Your task to perform on an android device: Open calendar and show me the second week of next month Image 0: 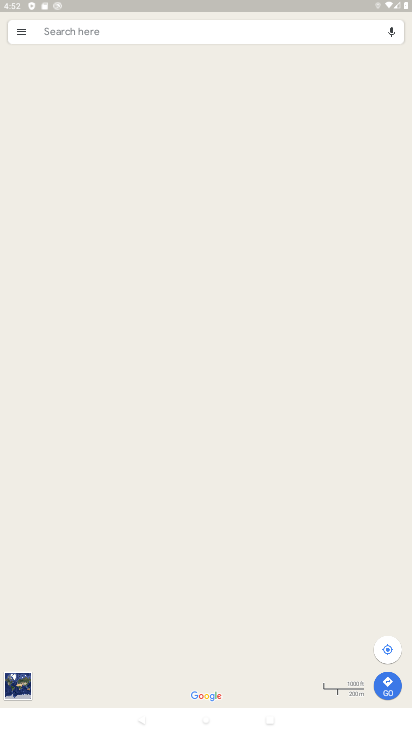
Step 0: press back button
Your task to perform on an android device: Open calendar and show me the second week of next month Image 1: 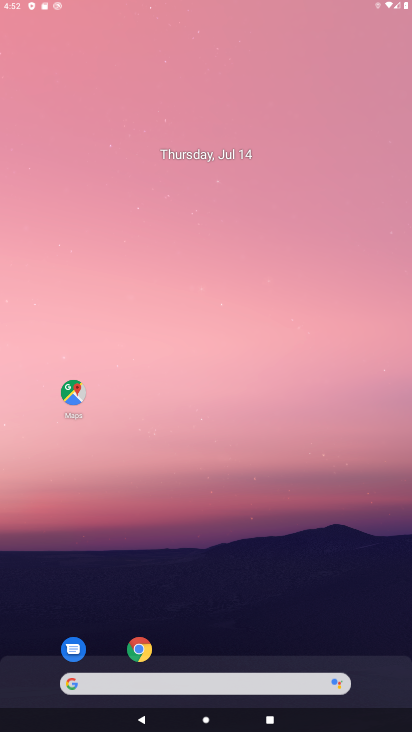
Step 1: press back button
Your task to perform on an android device: Open calendar and show me the second week of next month Image 2: 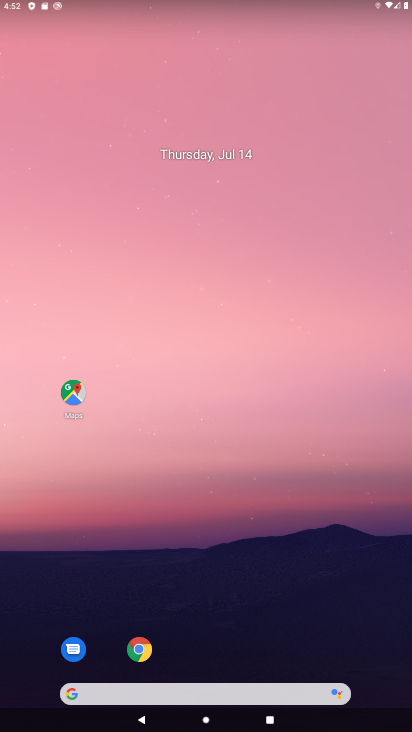
Step 2: click (284, 103)
Your task to perform on an android device: Open calendar and show me the second week of next month Image 3: 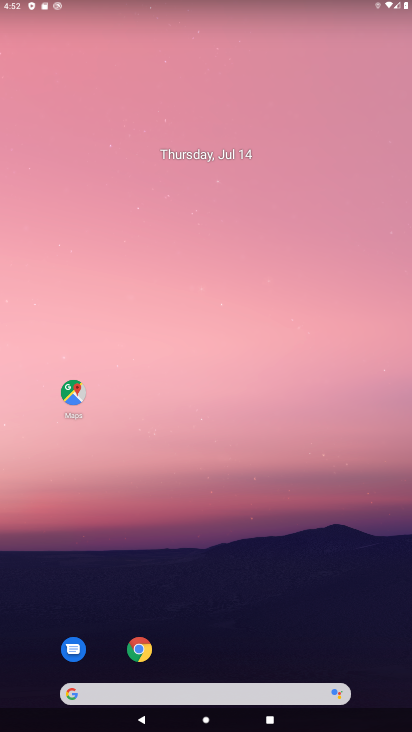
Step 3: drag from (202, 499) to (227, 88)
Your task to perform on an android device: Open calendar and show me the second week of next month Image 4: 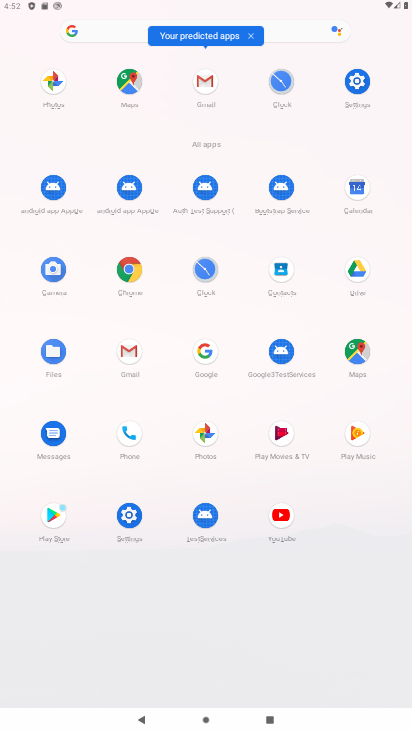
Step 4: click (359, 179)
Your task to perform on an android device: Open calendar and show me the second week of next month Image 5: 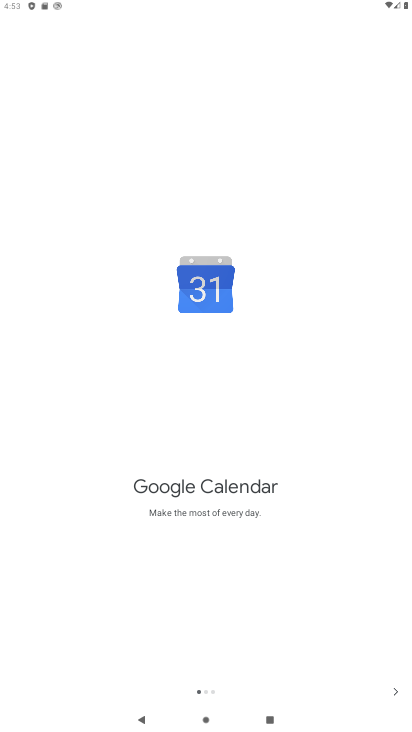
Step 5: click (399, 690)
Your task to perform on an android device: Open calendar and show me the second week of next month Image 6: 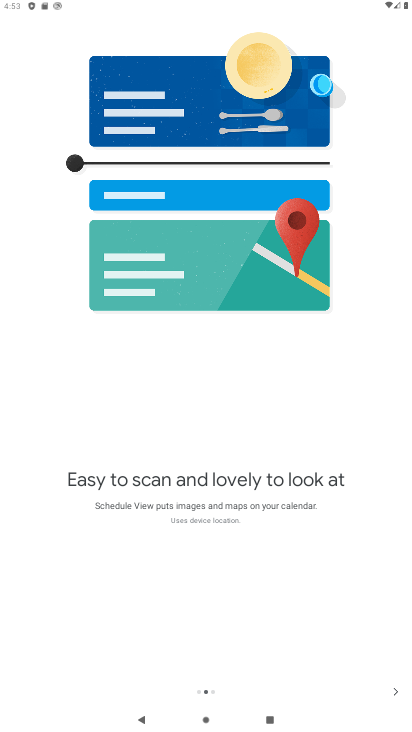
Step 6: click (386, 689)
Your task to perform on an android device: Open calendar and show me the second week of next month Image 7: 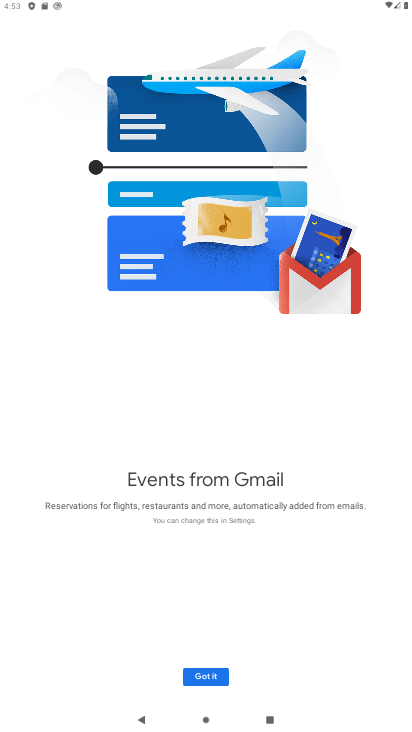
Step 7: click (209, 678)
Your task to perform on an android device: Open calendar and show me the second week of next month Image 8: 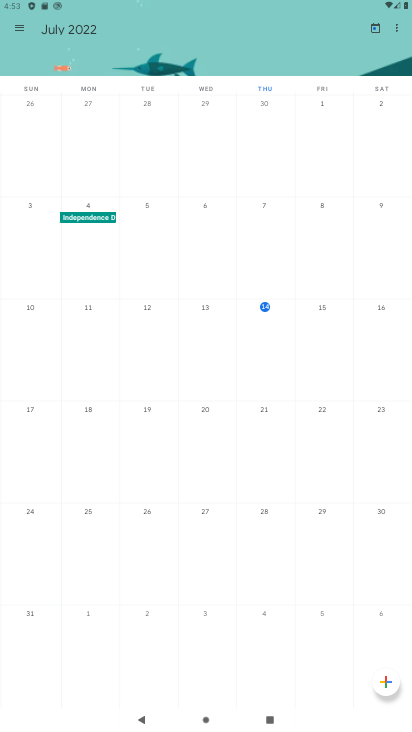
Step 8: drag from (367, 405) to (7, 400)
Your task to perform on an android device: Open calendar and show me the second week of next month Image 9: 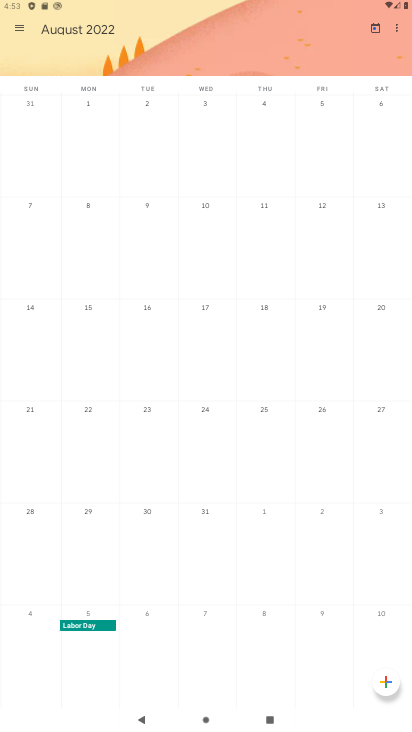
Step 9: click (87, 203)
Your task to perform on an android device: Open calendar and show me the second week of next month Image 10: 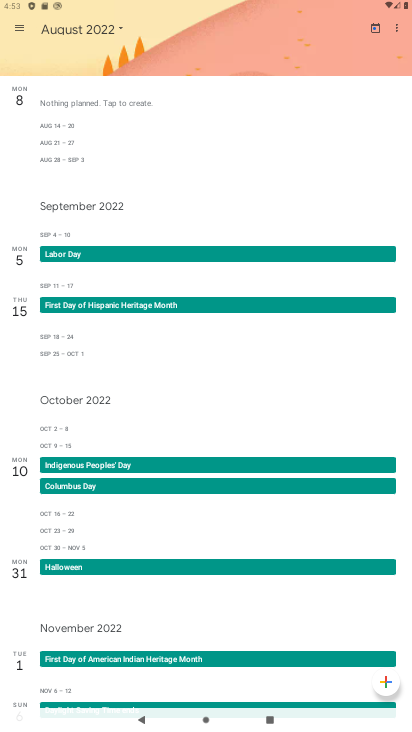
Step 10: task complete